Your task to perform on an android device: turn off location Image 0: 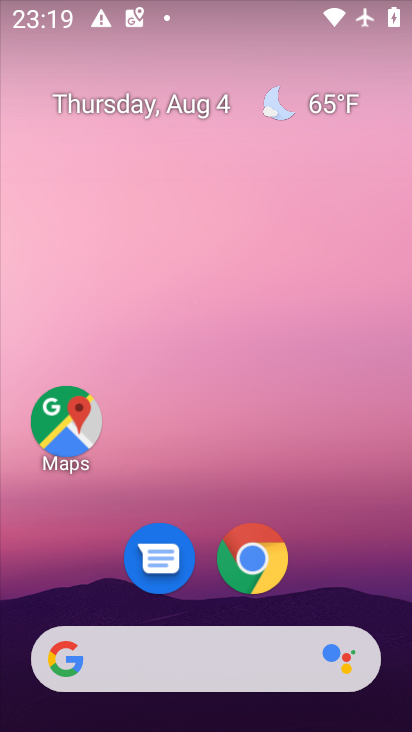
Step 0: click (363, 77)
Your task to perform on an android device: turn off location Image 1: 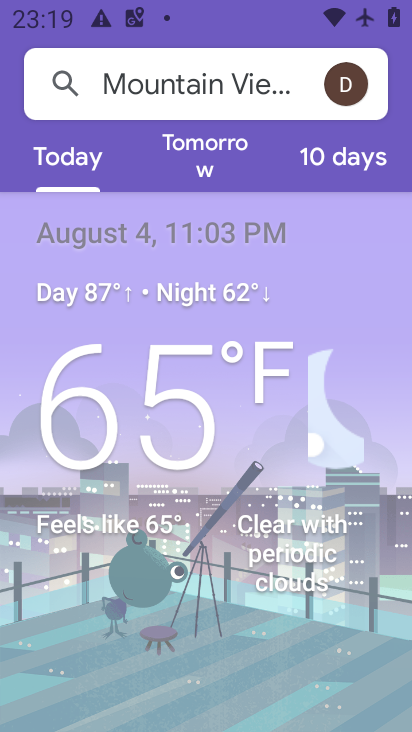
Step 1: press home button
Your task to perform on an android device: turn off location Image 2: 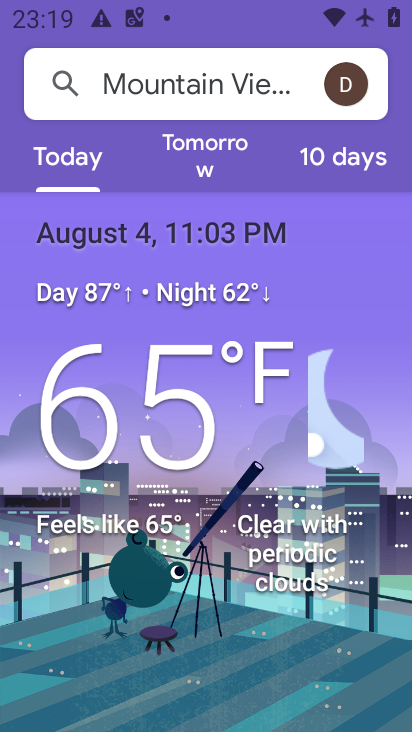
Step 2: press home button
Your task to perform on an android device: turn off location Image 3: 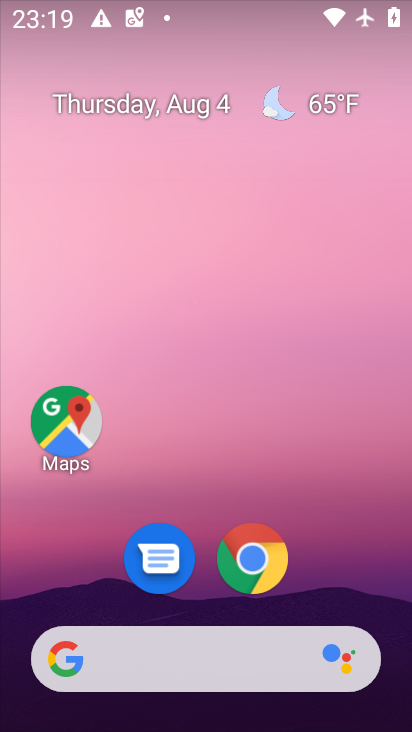
Step 3: drag from (347, 550) to (308, 77)
Your task to perform on an android device: turn off location Image 4: 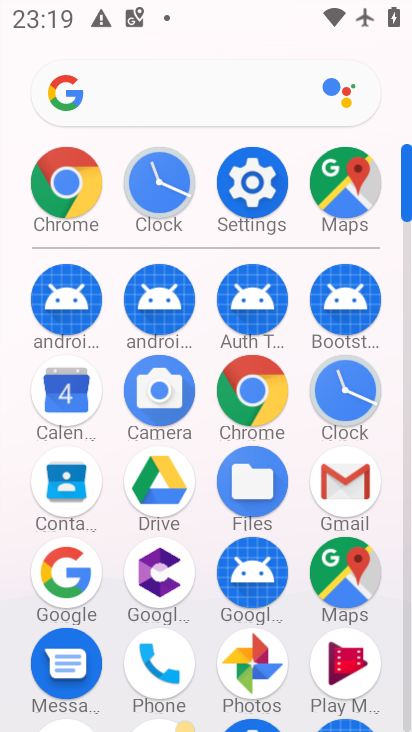
Step 4: click (234, 177)
Your task to perform on an android device: turn off location Image 5: 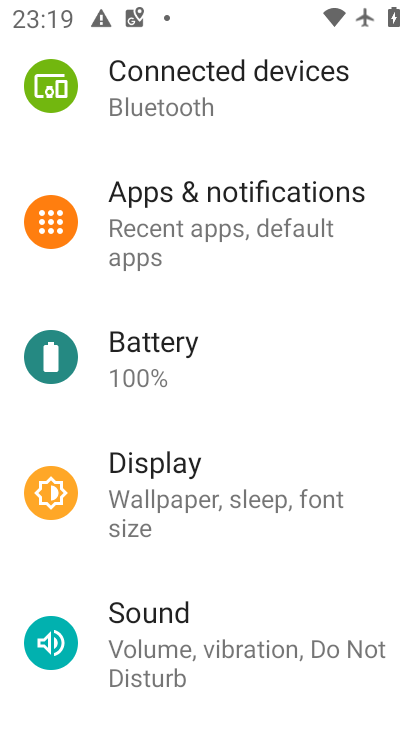
Step 5: drag from (275, 593) to (315, 210)
Your task to perform on an android device: turn off location Image 6: 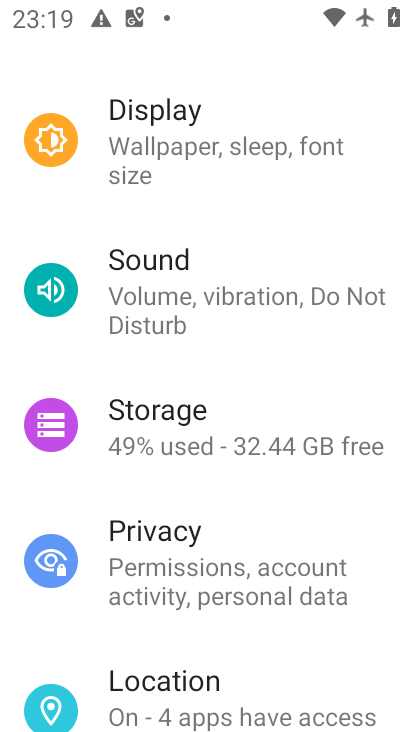
Step 6: click (231, 716)
Your task to perform on an android device: turn off location Image 7: 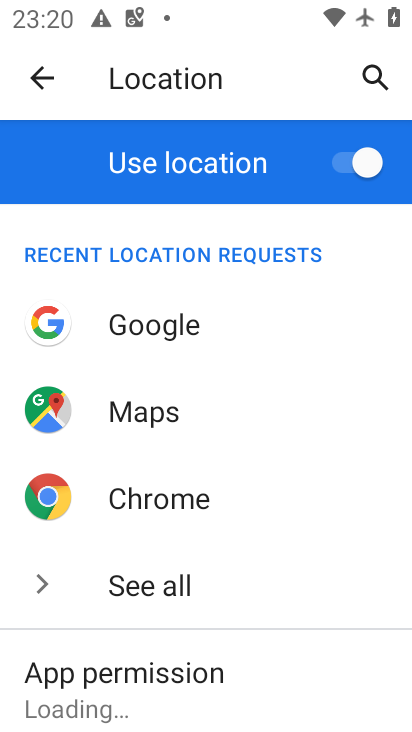
Step 7: click (359, 163)
Your task to perform on an android device: turn off location Image 8: 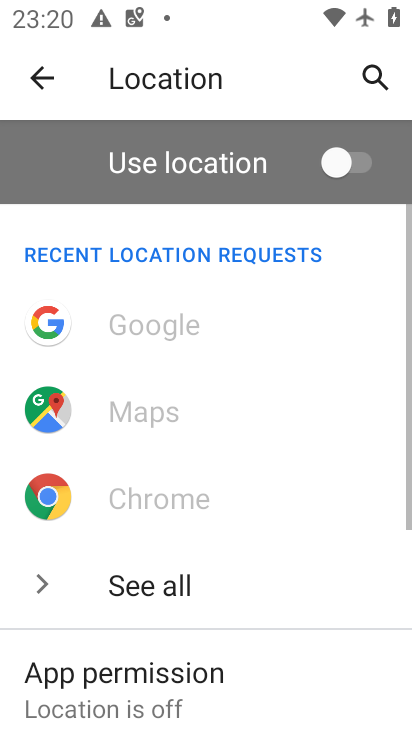
Step 8: task complete